Your task to perform on an android device: toggle location history Image 0: 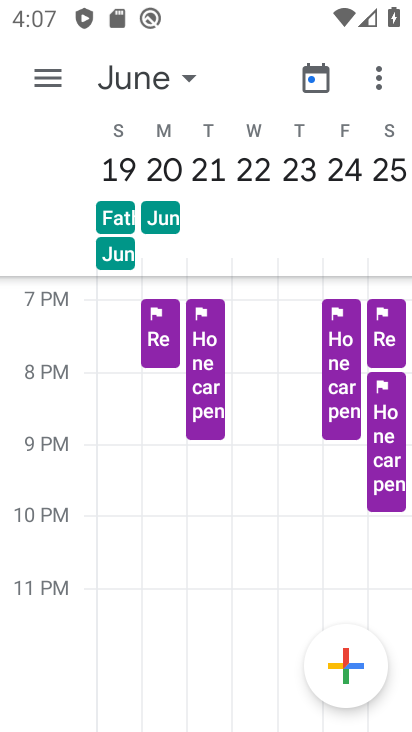
Step 0: press home button
Your task to perform on an android device: toggle location history Image 1: 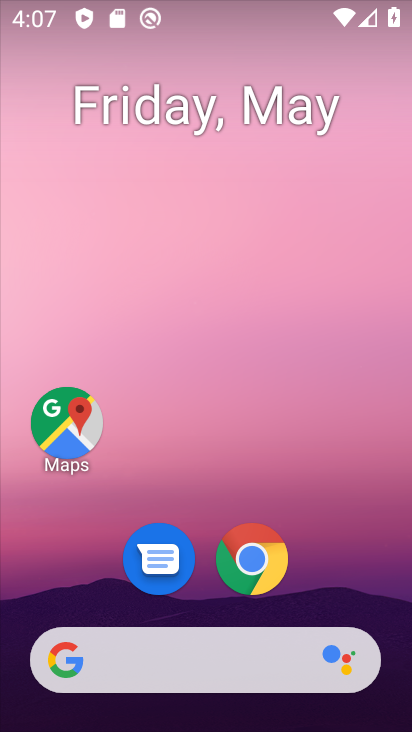
Step 1: drag from (316, 548) to (264, 161)
Your task to perform on an android device: toggle location history Image 2: 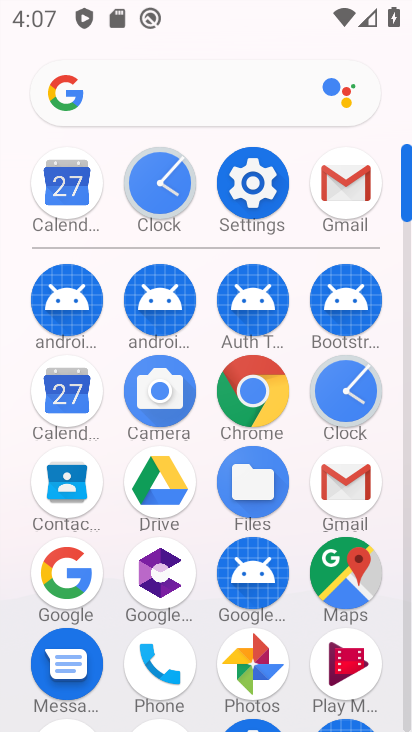
Step 2: click (306, 208)
Your task to perform on an android device: toggle location history Image 3: 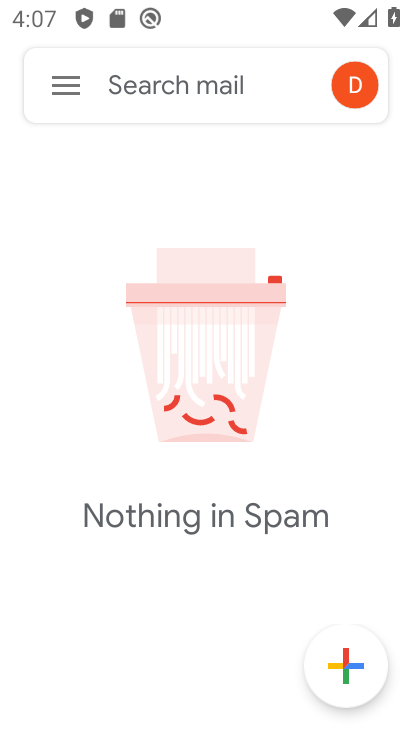
Step 3: press home button
Your task to perform on an android device: toggle location history Image 4: 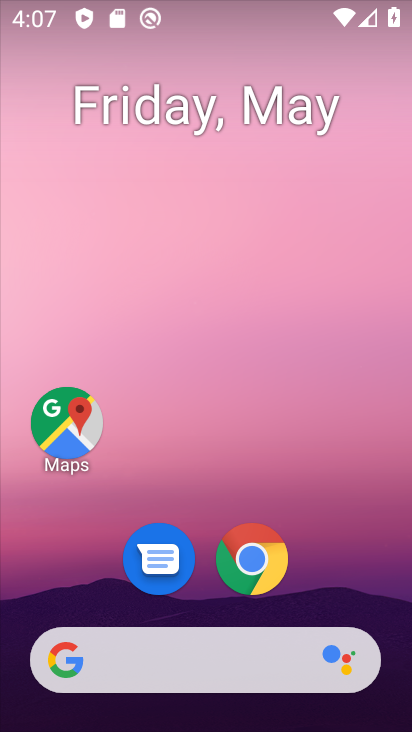
Step 4: drag from (350, 562) to (290, 82)
Your task to perform on an android device: toggle location history Image 5: 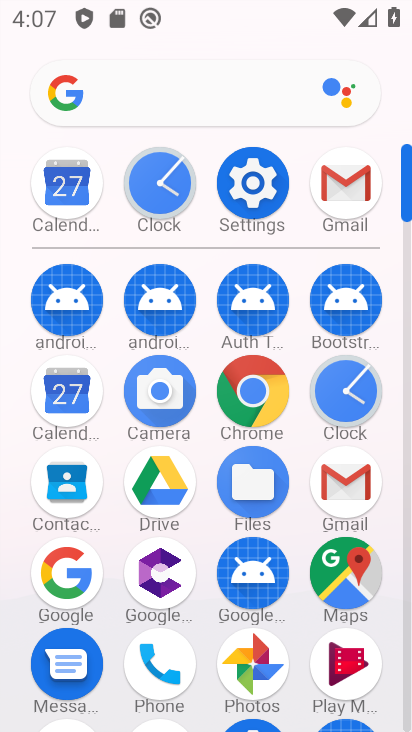
Step 5: click (240, 188)
Your task to perform on an android device: toggle location history Image 6: 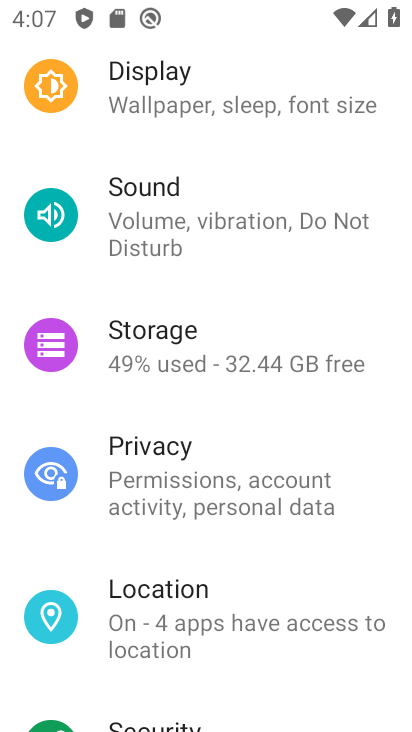
Step 6: click (182, 592)
Your task to perform on an android device: toggle location history Image 7: 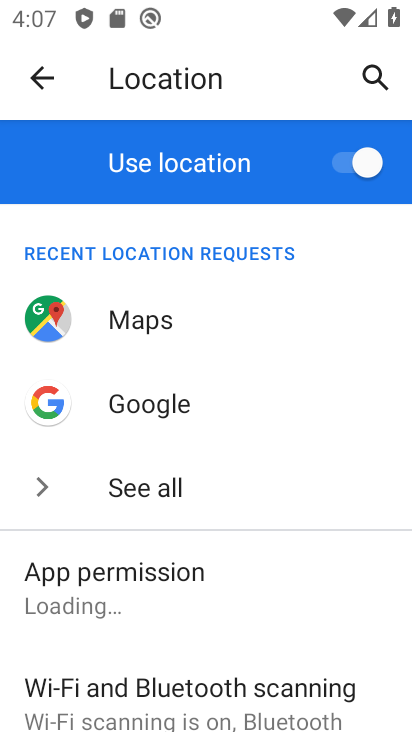
Step 7: drag from (178, 584) to (177, 148)
Your task to perform on an android device: toggle location history Image 8: 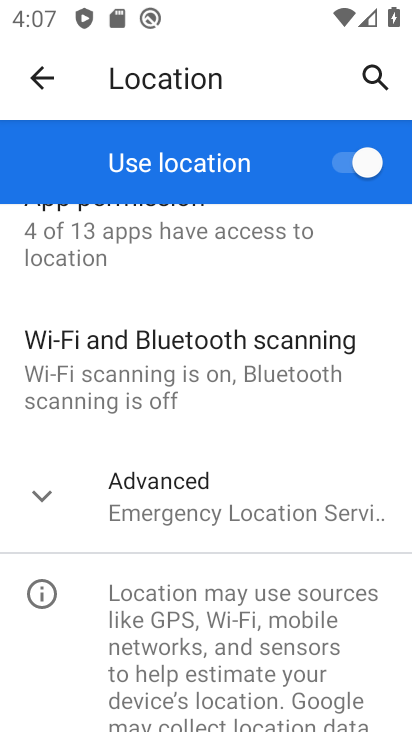
Step 8: click (108, 458)
Your task to perform on an android device: toggle location history Image 9: 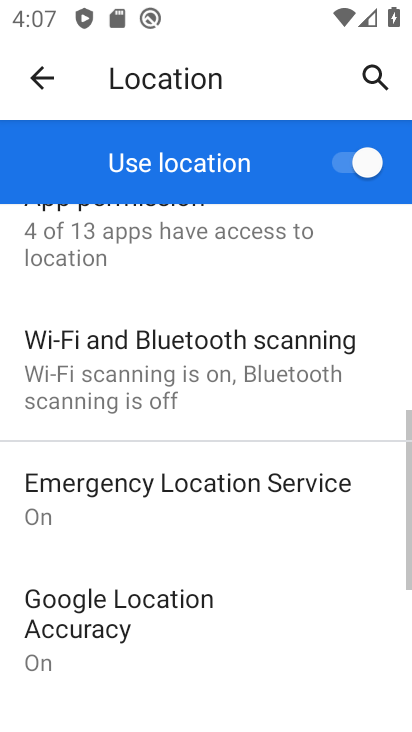
Step 9: drag from (148, 636) to (143, 295)
Your task to perform on an android device: toggle location history Image 10: 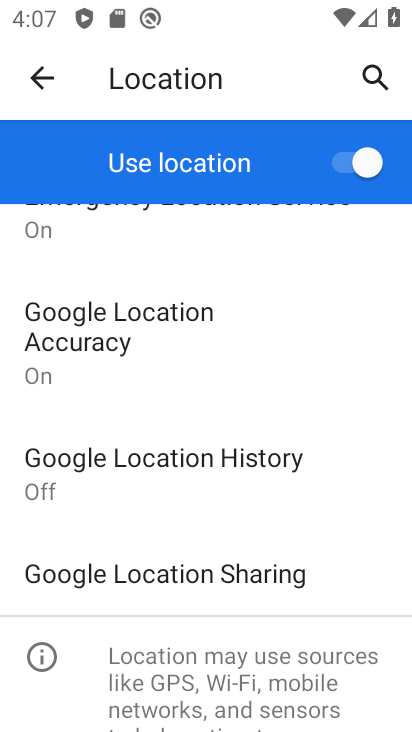
Step 10: click (154, 449)
Your task to perform on an android device: toggle location history Image 11: 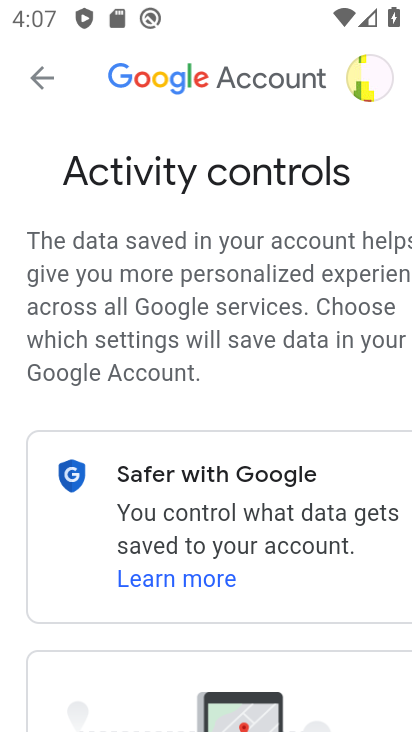
Step 11: drag from (253, 568) to (241, 156)
Your task to perform on an android device: toggle location history Image 12: 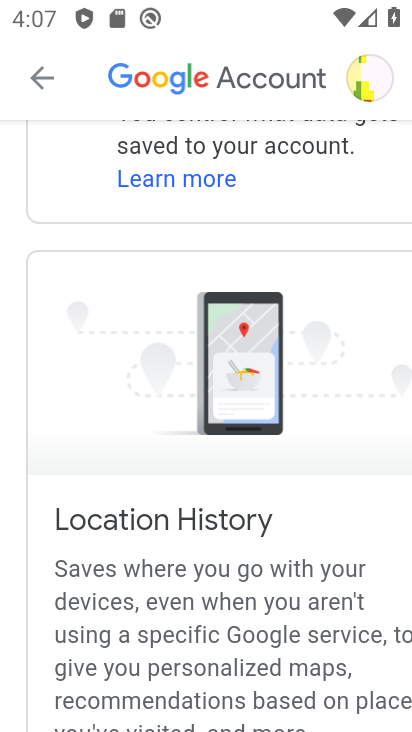
Step 12: drag from (272, 544) to (261, 166)
Your task to perform on an android device: toggle location history Image 13: 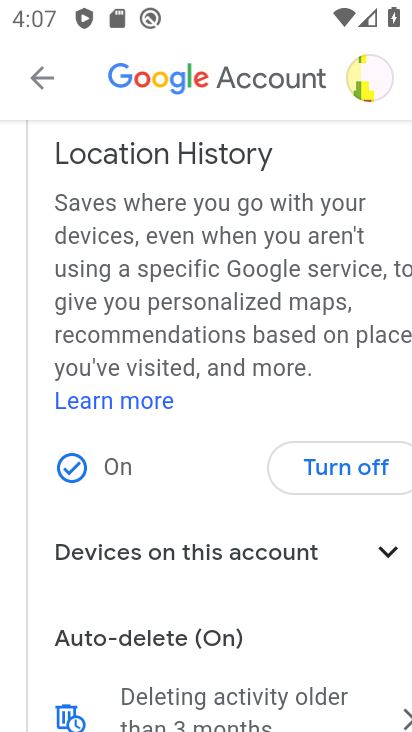
Step 13: click (327, 457)
Your task to perform on an android device: toggle location history Image 14: 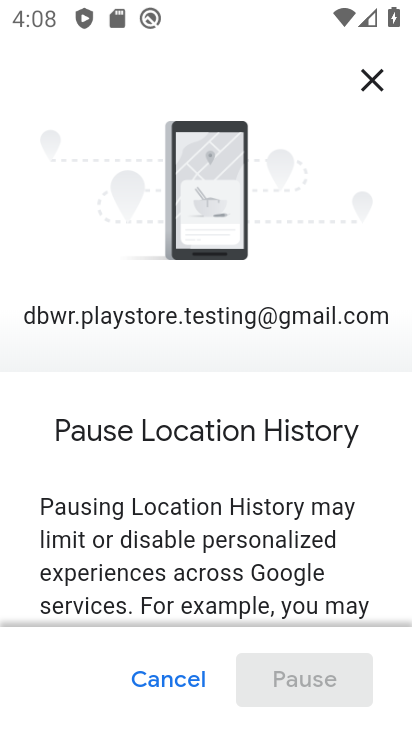
Step 14: task complete